Your task to perform on an android device: turn off translation in the chrome app Image 0: 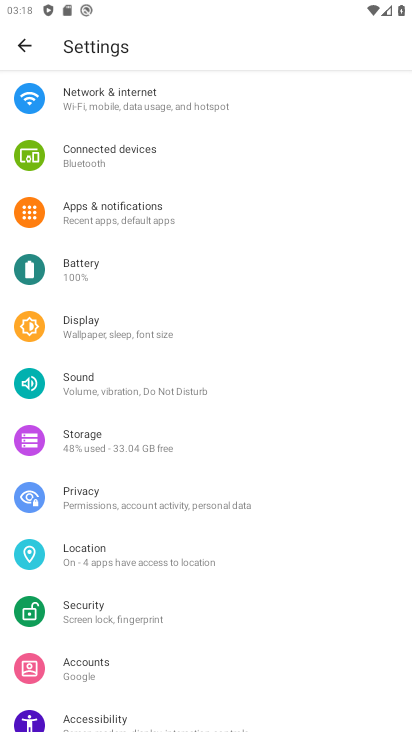
Step 0: press home button
Your task to perform on an android device: turn off translation in the chrome app Image 1: 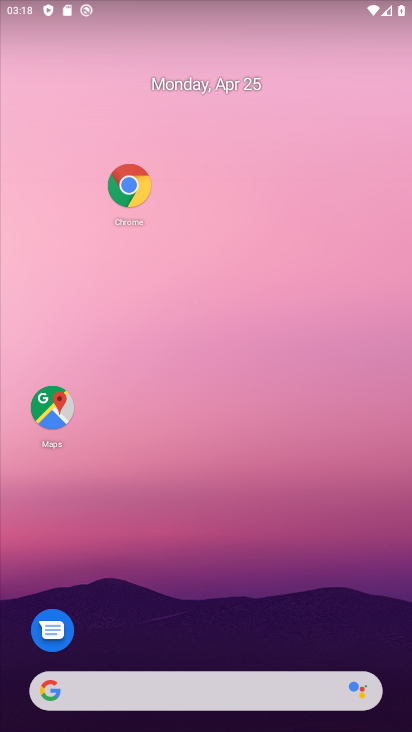
Step 1: click (128, 188)
Your task to perform on an android device: turn off translation in the chrome app Image 2: 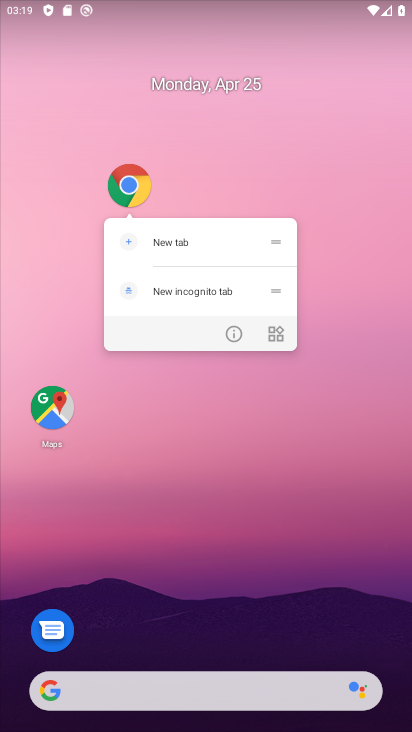
Step 2: click (239, 331)
Your task to perform on an android device: turn off translation in the chrome app Image 3: 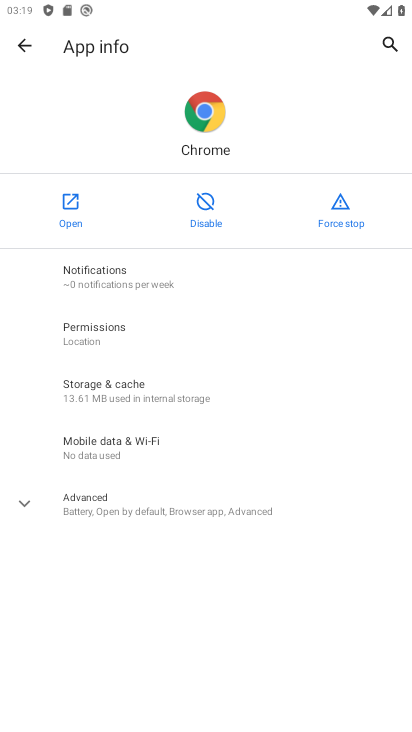
Step 3: click (82, 208)
Your task to perform on an android device: turn off translation in the chrome app Image 4: 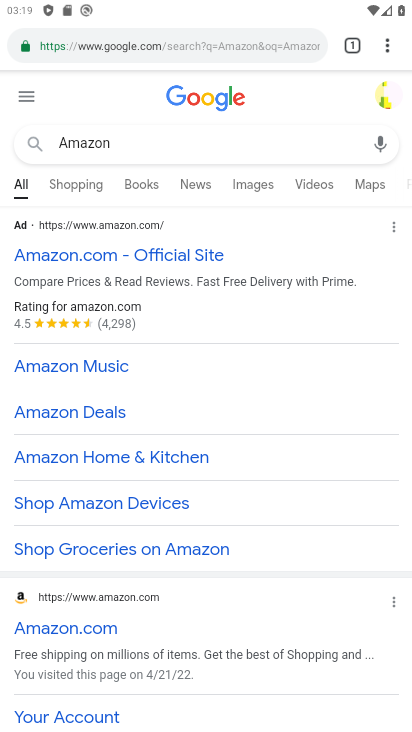
Step 4: click (385, 43)
Your task to perform on an android device: turn off translation in the chrome app Image 5: 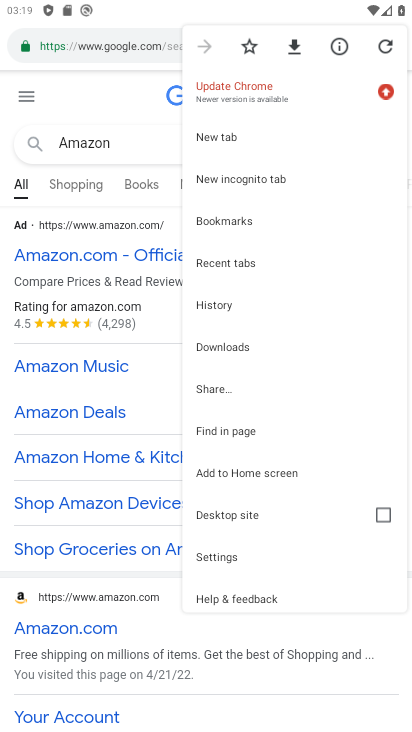
Step 5: click (231, 561)
Your task to perform on an android device: turn off translation in the chrome app Image 6: 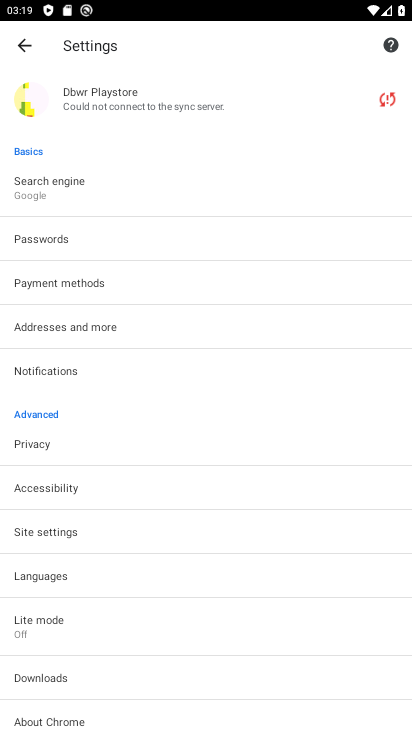
Step 6: click (47, 575)
Your task to perform on an android device: turn off translation in the chrome app Image 7: 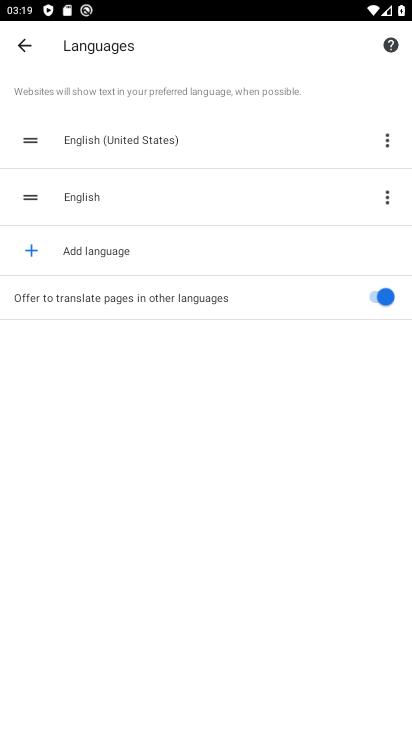
Step 7: click (377, 297)
Your task to perform on an android device: turn off translation in the chrome app Image 8: 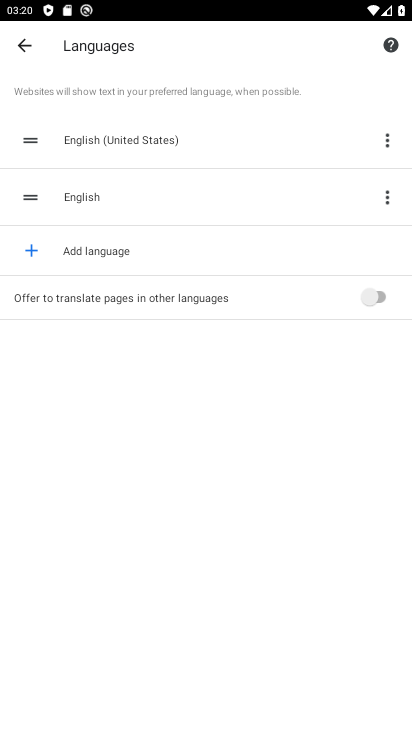
Step 8: task complete